Your task to perform on an android device: Open Wikipedia Image 0: 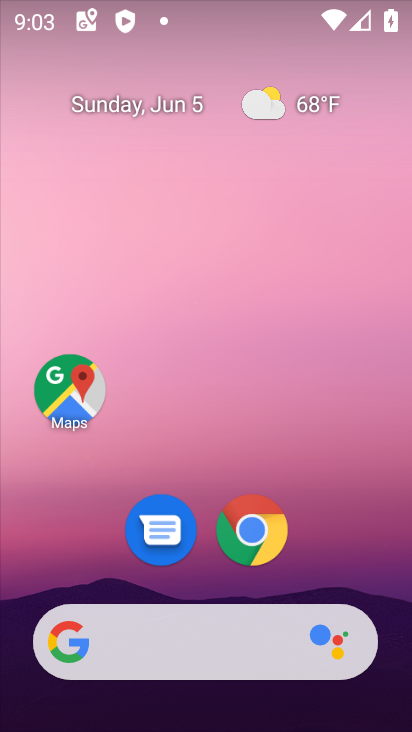
Step 0: click (250, 533)
Your task to perform on an android device: Open Wikipedia Image 1: 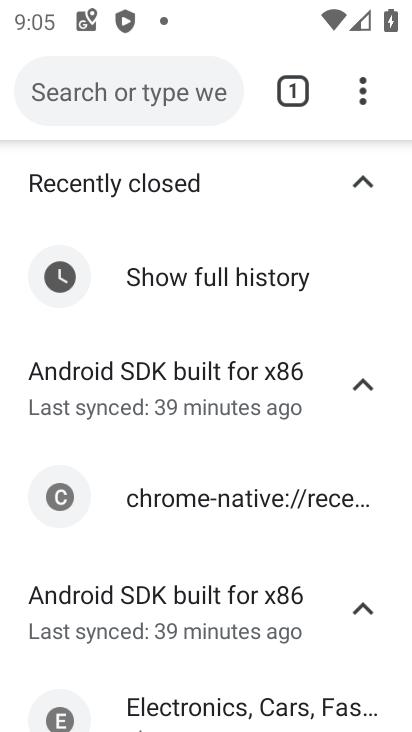
Step 1: press home button
Your task to perform on an android device: Open Wikipedia Image 2: 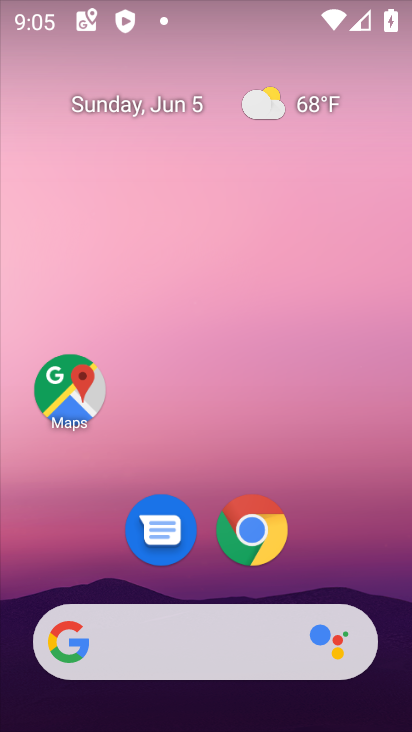
Step 2: click (254, 530)
Your task to perform on an android device: Open Wikipedia Image 3: 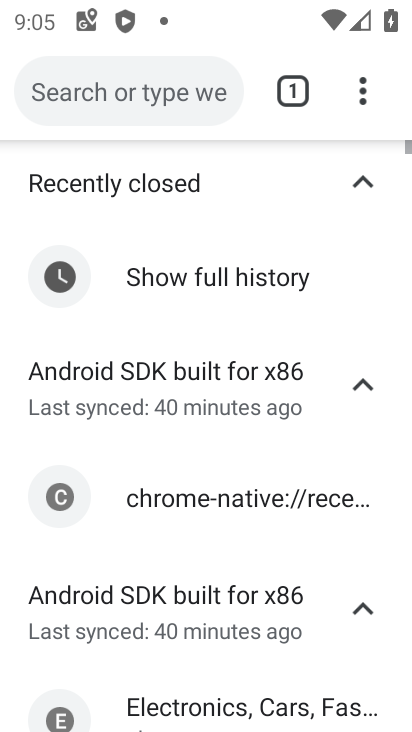
Step 3: click (115, 80)
Your task to perform on an android device: Open Wikipedia Image 4: 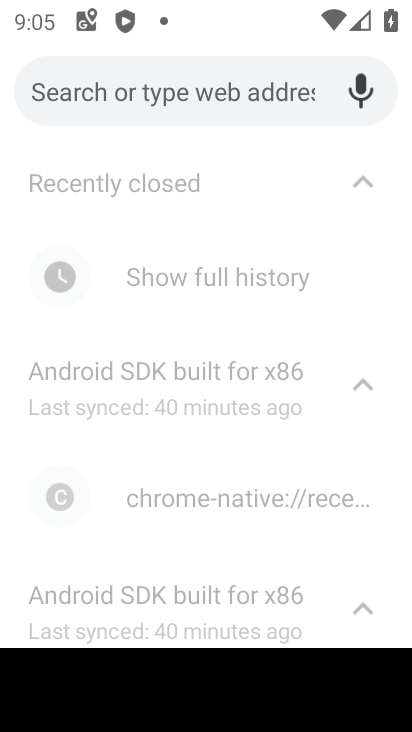
Step 4: type "wikipedia"
Your task to perform on an android device: Open Wikipedia Image 5: 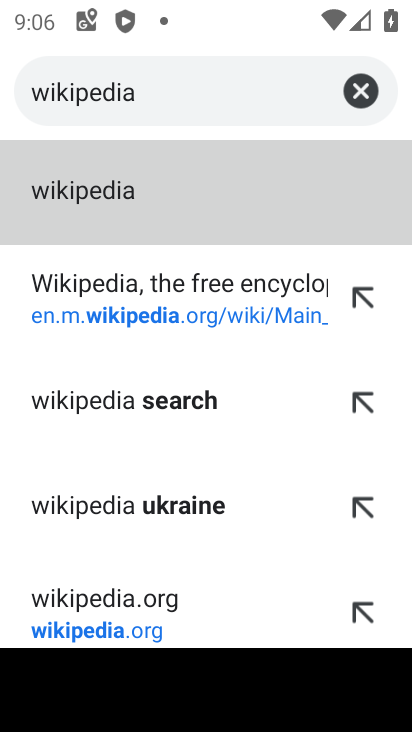
Step 5: click (99, 169)
Your task to perform on an android device: Open Wikipedia Image 6: 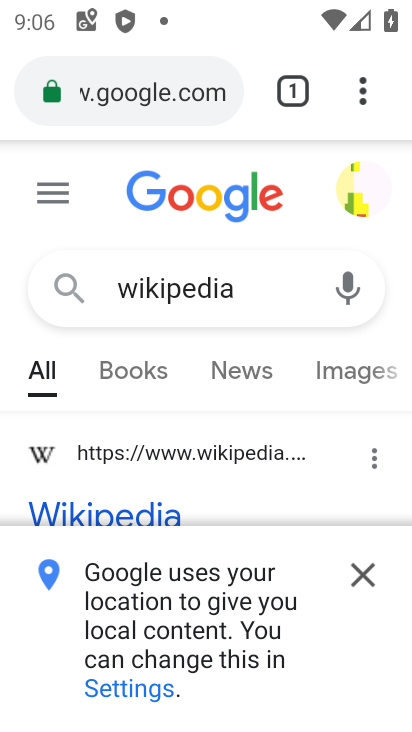
Step 6: click (366, 578)
Your task to perform on an android device: Open Wikipedia Image 7: 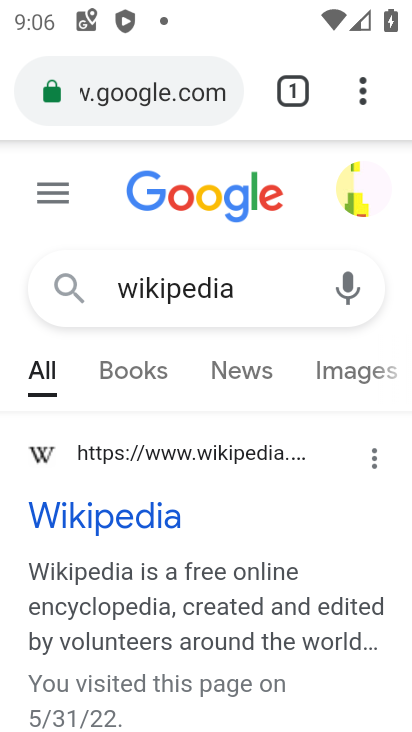
Step 7: click (82, 510)
Your task to perform on an android device: Open Wikipedia Image 8: 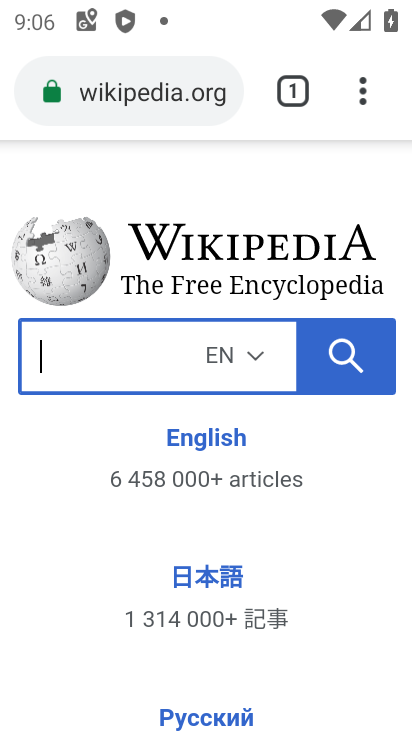
Step 8: task complete